Your task to perform on an android device: install app "Life360: Find Family & Friends" Image 0: 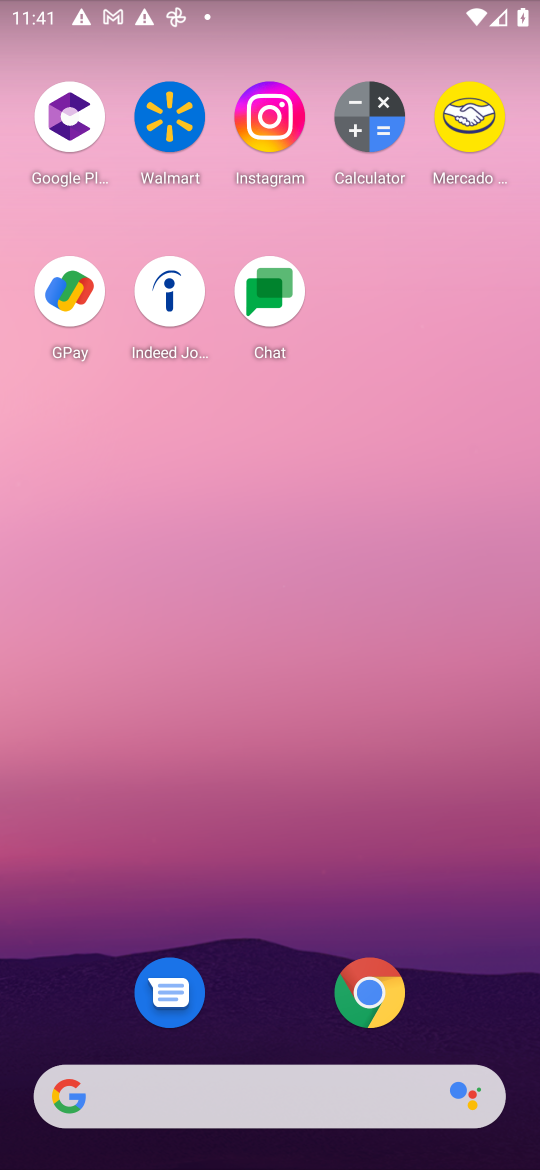
Step 0: drag from (458, 867) to (152, 28)
Your task to perform on an android device: install app "Life360: Find Family & Friends" Image 1: 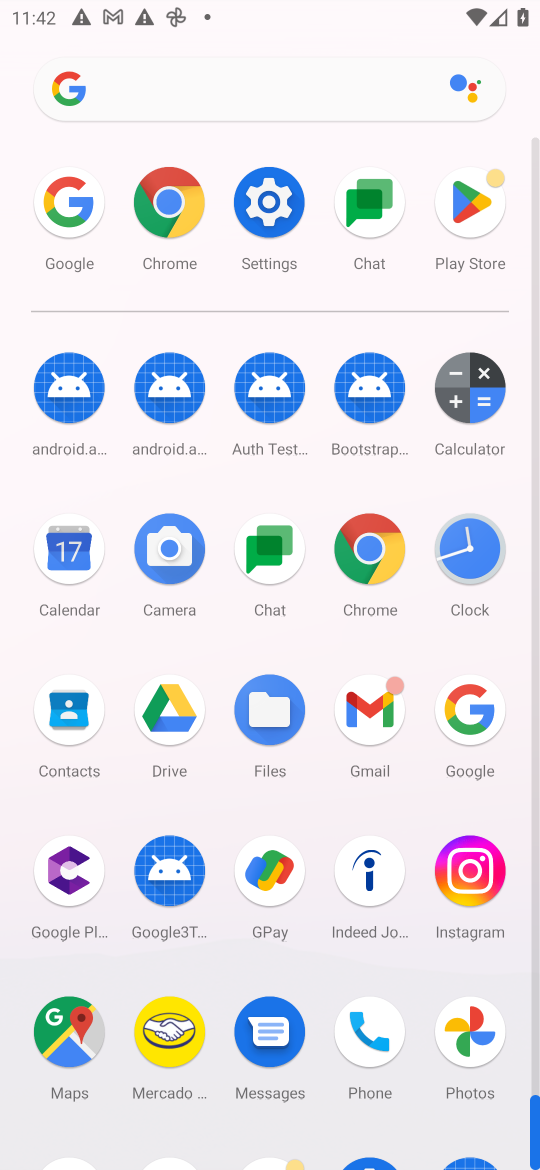
Step 1: click (463, 208)
Your task to perform on an android device: install app "Life360: Find Family & Friends" Image 2: 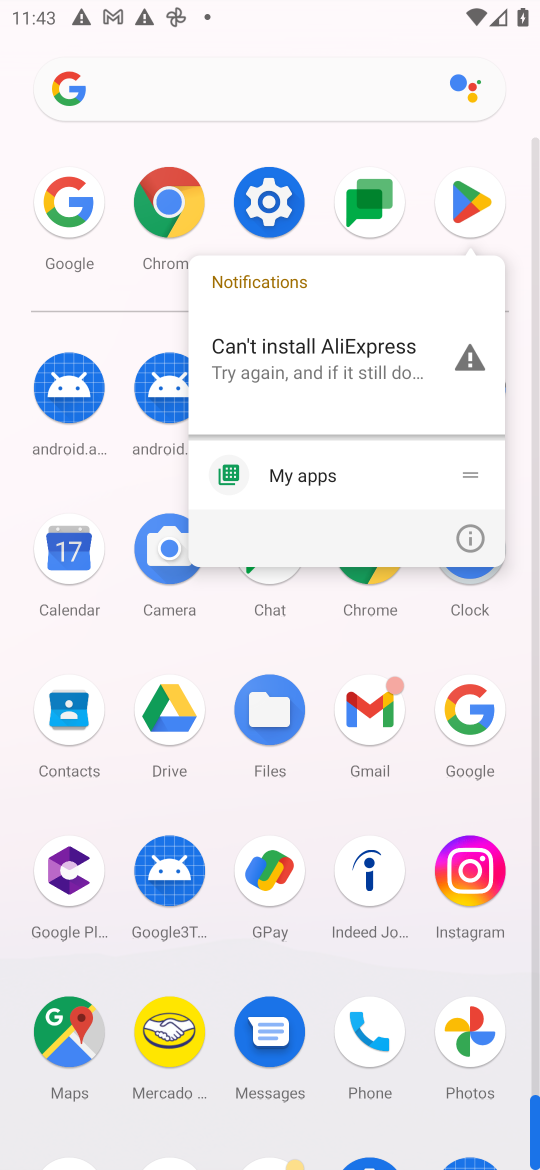
Step 2: click (463, 208)
Your task to perform on an android device: install app "Life360: Find Family & Friends" Image 3: 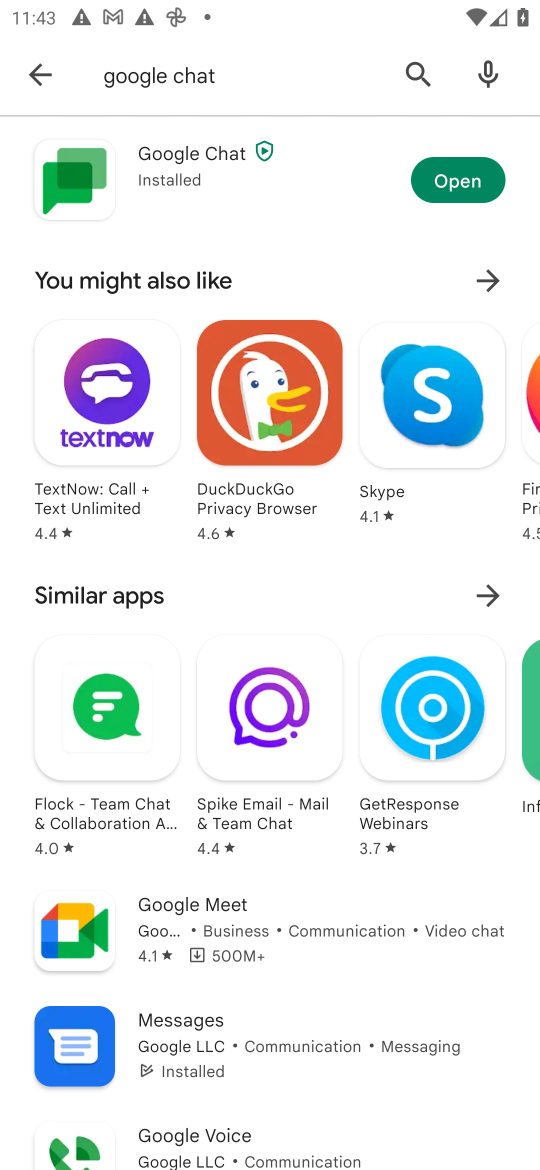
Step 3: press back button
Your task to perform on an android device: install app "Life360: Find Family & Friends" Image 4: 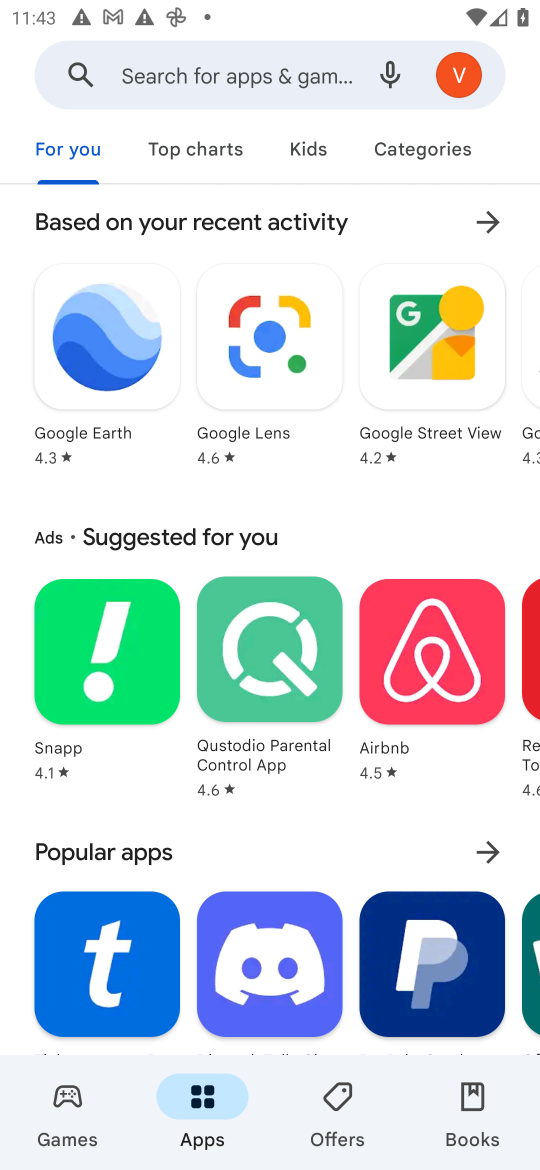
Step 4: click (176, 83)
Your task to perform on an android device: install app "Life360: Find Family & Friends" Image 5: 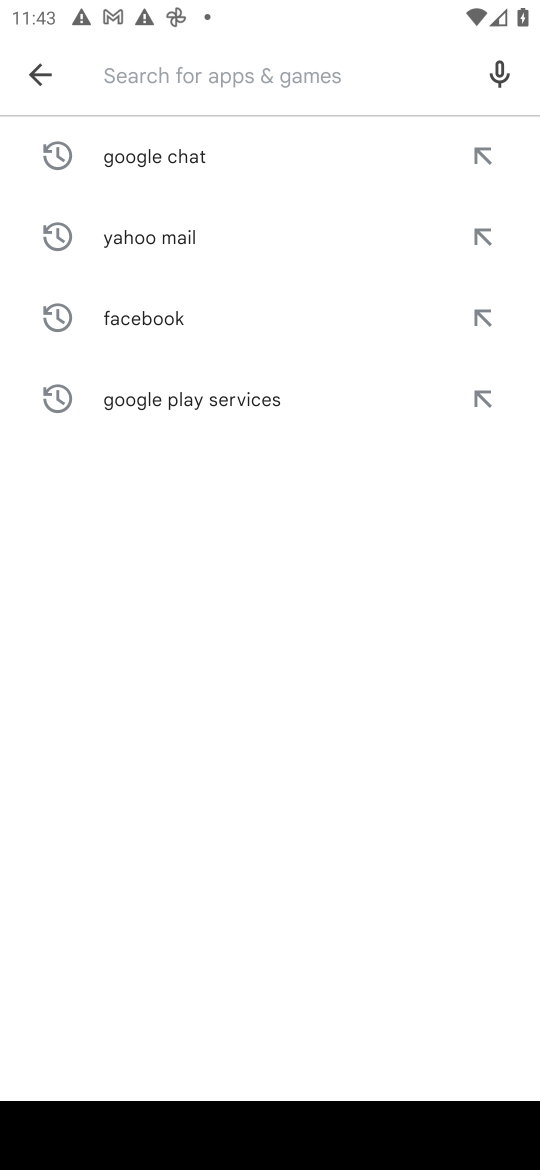
Step 5: type "Life360: Find Family & Friends"
Your task to perform on an android device: install app "Life360: Find Family & Friends" Image 6: 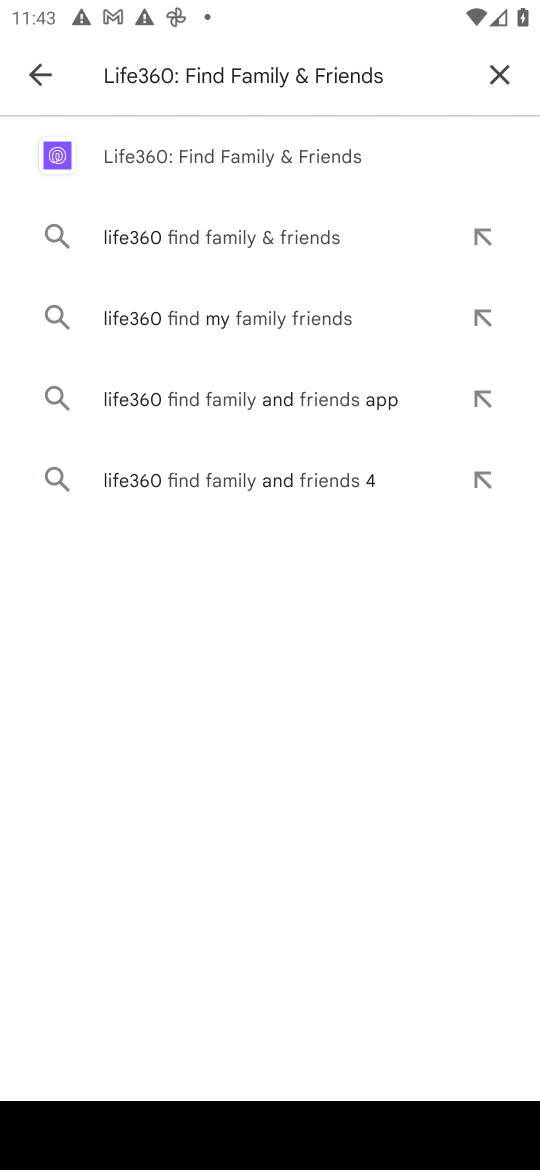
Step 6: click (185, 158)
Your task to perform on an android device: install app "Life360: Find Family & Friends" Image 7: 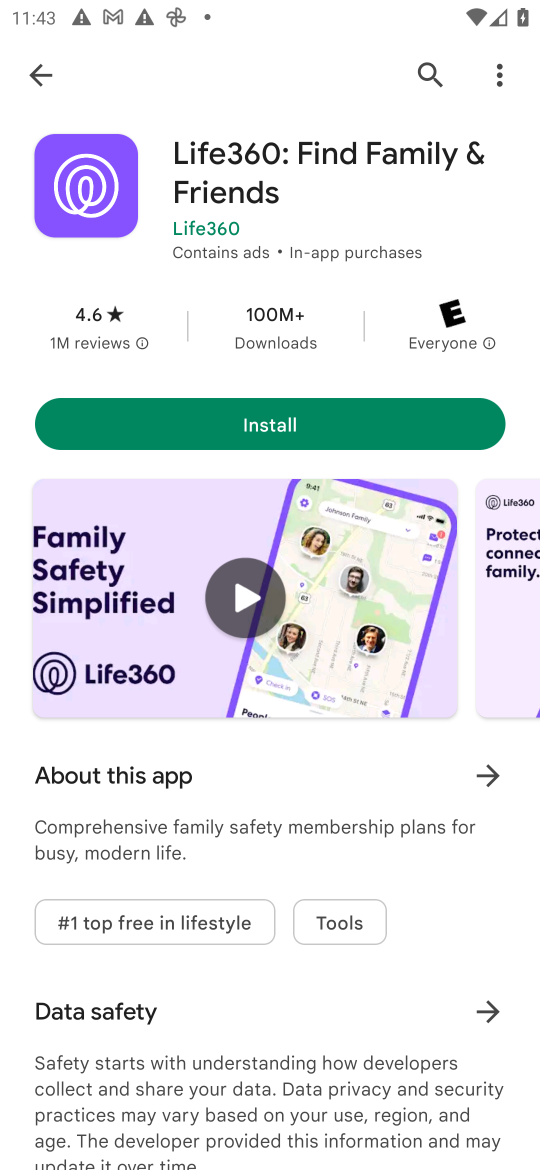
Step 7: click (294, 428)
Your task to perform on an android device: install app "Life360: Find Family & Friends" Image 8: 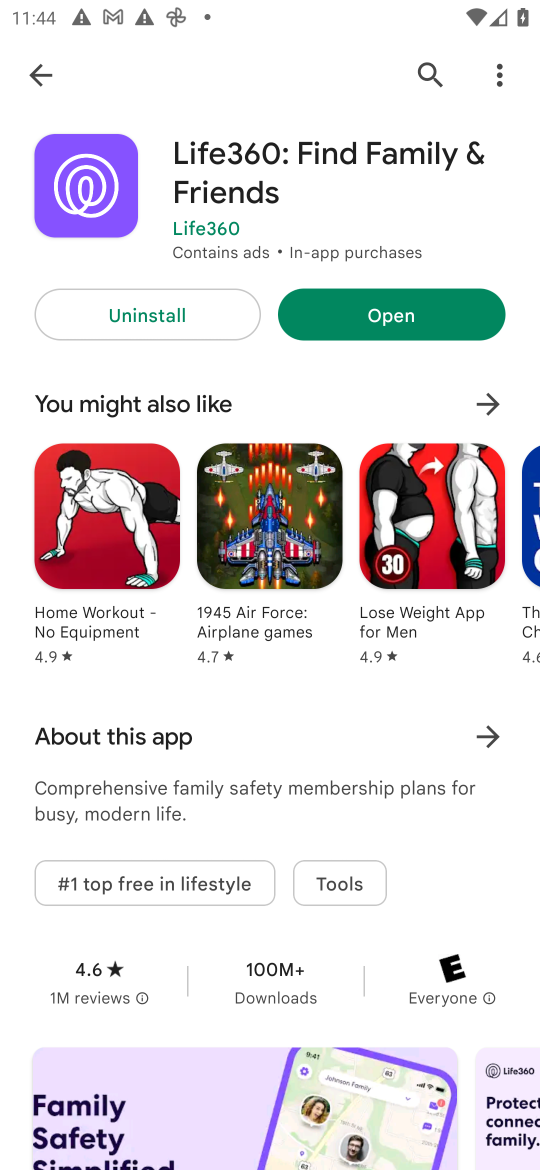
Step 8: task complete